Your task to perform on an android device: turn on data saver in the chrome app Image 0: 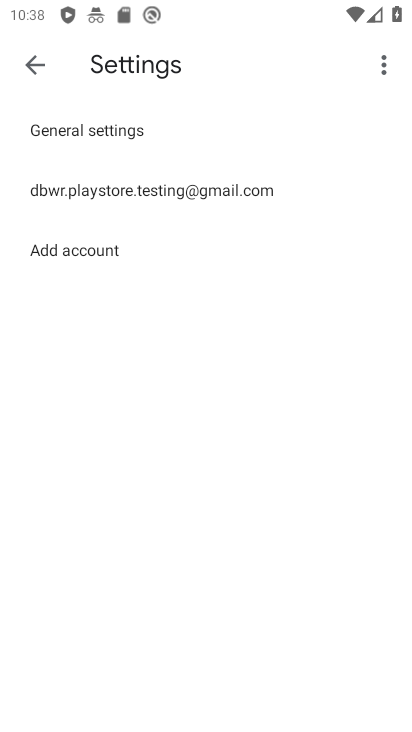
Step 0: press home button
Your task to perform on an android device: turn on data saver in the chrome app Image 1: 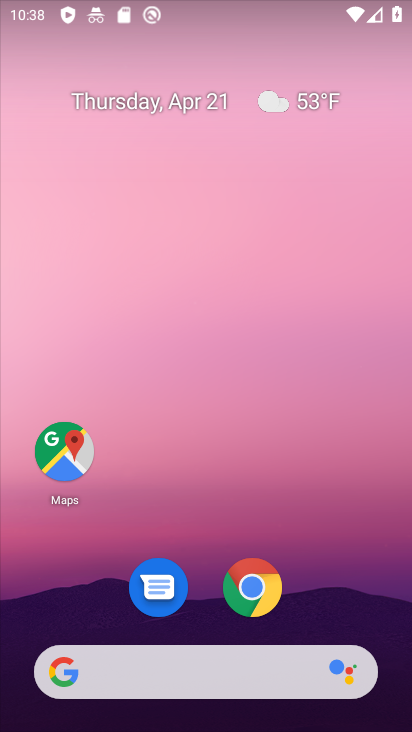
Step 1: click (266, 589)
Your task to perform on an android device: turn on data saver in the chrome app Image 2: 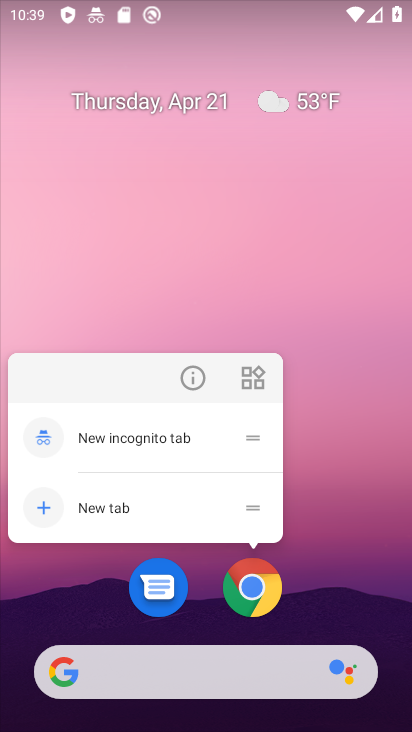
Step 2: click (266, 589)
Your task to perform on an android device: turn on data saver in the chrome app Image 3: 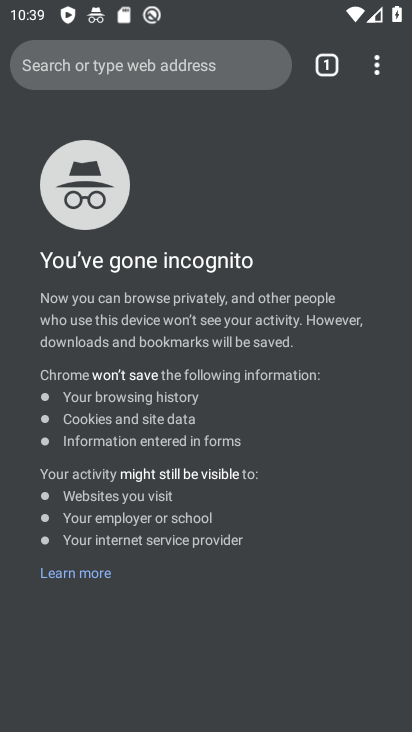
Step 3: drag from (363, 78) to (153, 495)
Your task to perform on an android device: turn on data saver in the chrome app Image 4: 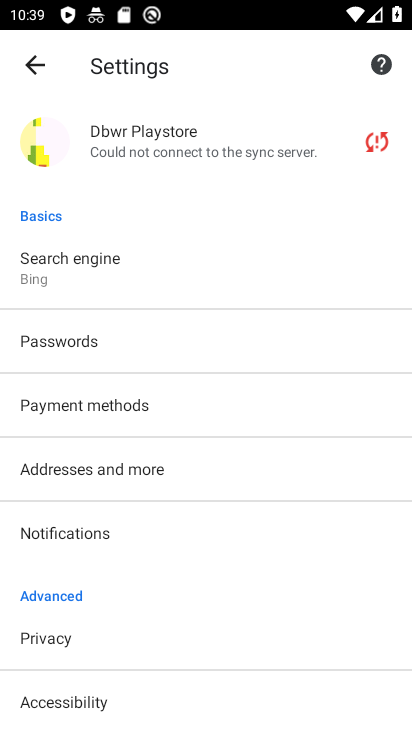
Step 4: drag from (185, 570) to (73, 1)
Your task to perform on an android device: turn on data saver in the chrome app Image 5: 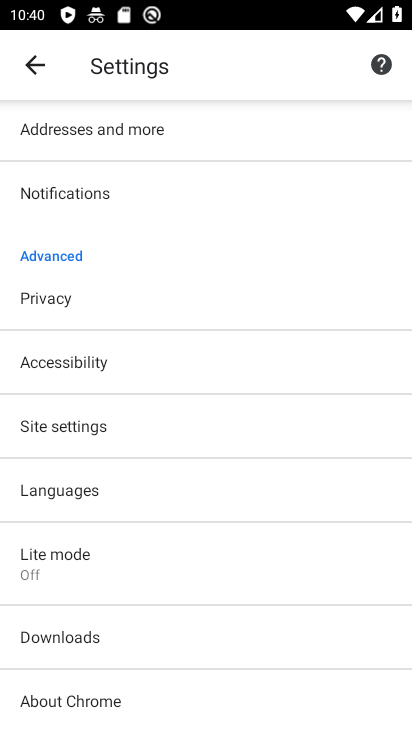
Step 5: click (94, 549)
Your task to perform on an android device: turn on data saver in the chrome app Image 6: 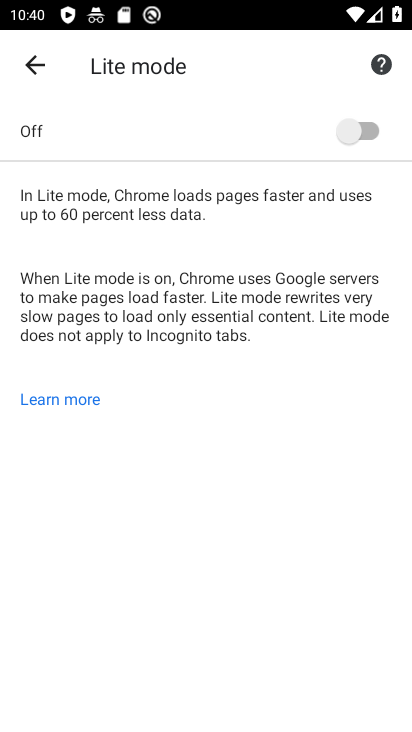
Step 6: click (360, 118)
Your task to perform on an android device: turn on data saver in the chrome app Image 7: 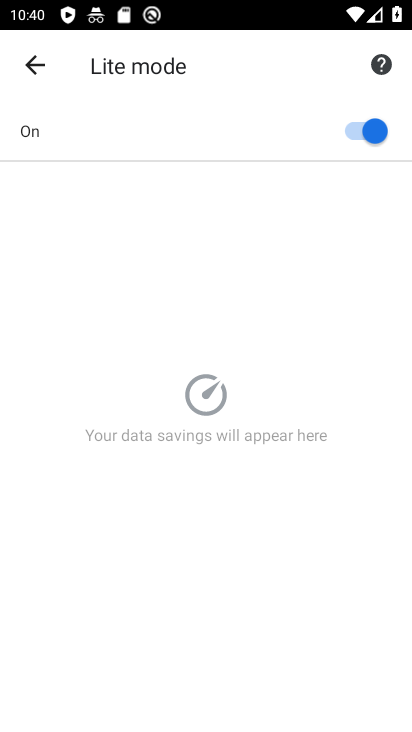
Step 7: task complete